Your task to perform on an android device: Open calendar and show me the second week of next month Image 0: 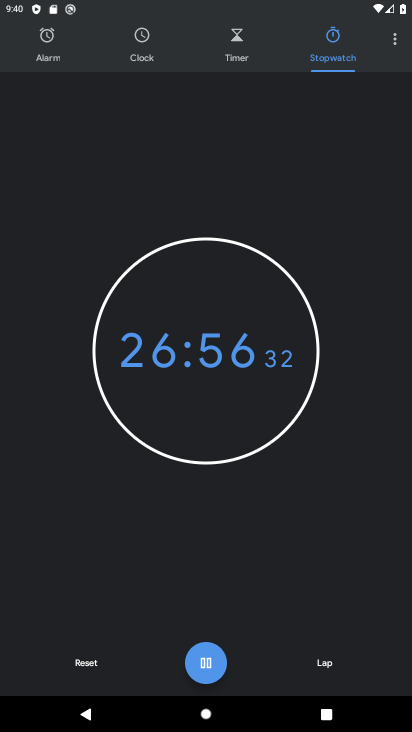
Step 0: press home button
Your task to perform on an android device: Open calendar and show me the second week of next month Image 1: 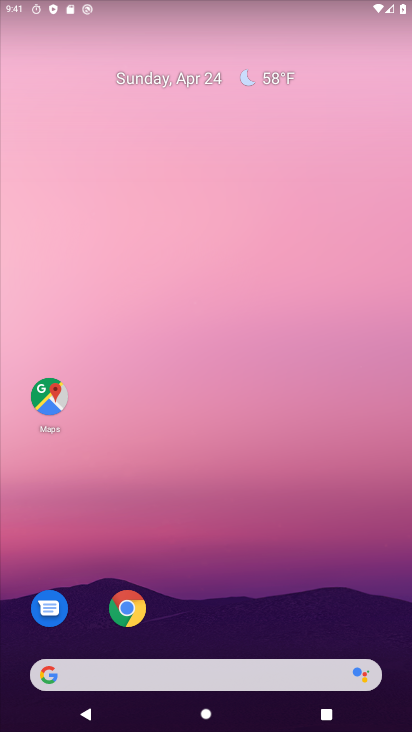
Step 1: drag from (363, 606) to (376, 91)
Your task to perform on an android device: Open calendar and show me the second week of next month Image 2: 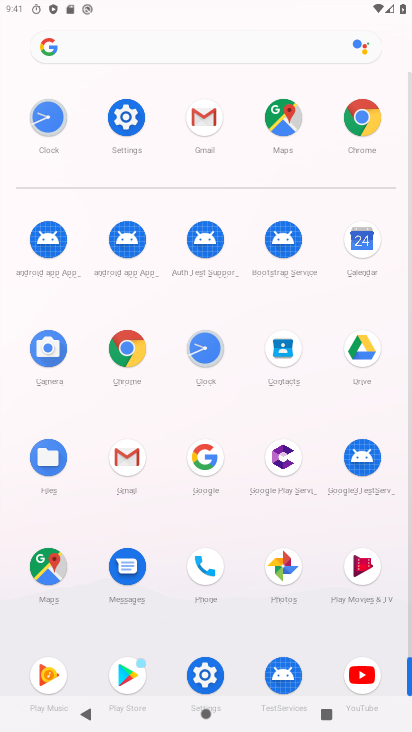
Step 2: click (371, 236)
Your task to perform on an android device: Open calendar and show me the second week of next month Image 3: 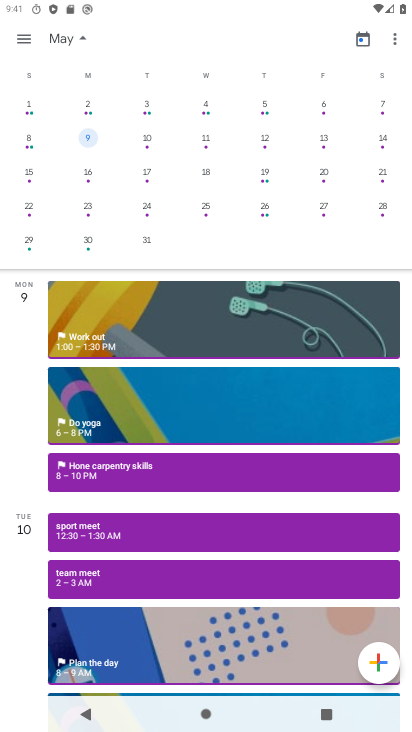
Step 3: task complete